Your task to perform on an android device: Open Google Maps Image 0: 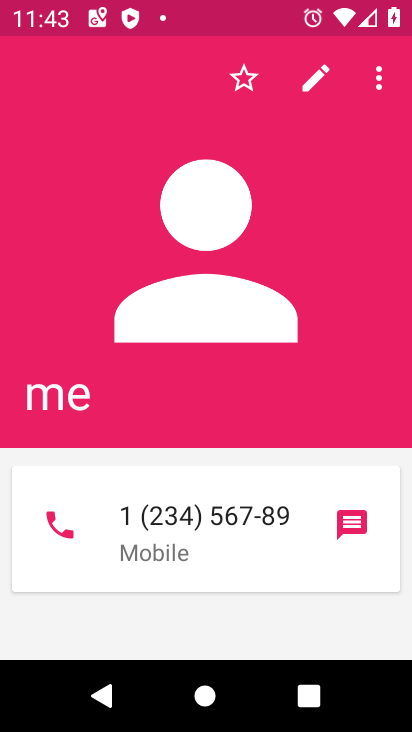
Step 0: press home button
Your task to perform on an android device: Open Google Maps Image 1: 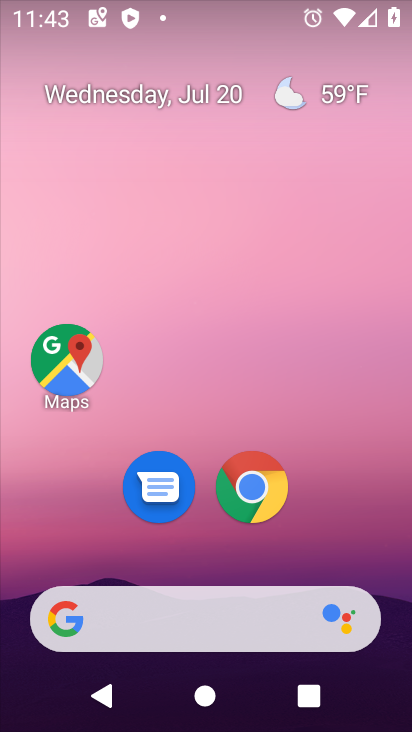
Step 1: drag from (362, 523) to (381, 73)
Your task to perform on an android device: Open Google Maps Image 2: 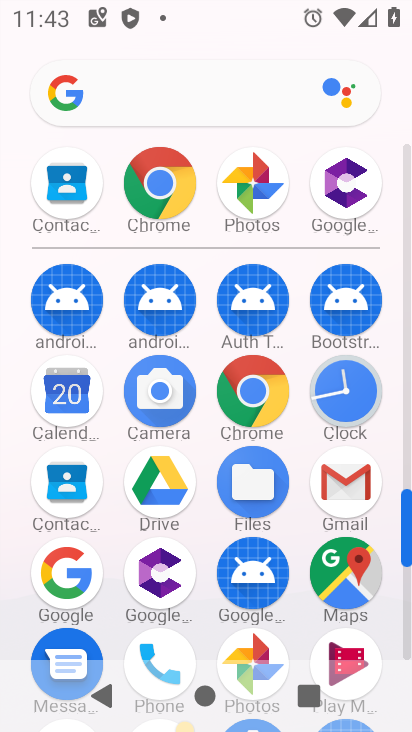
Step 2: click (361, 570)
Your task to perform on an android device: Open Google Maps Image 3: 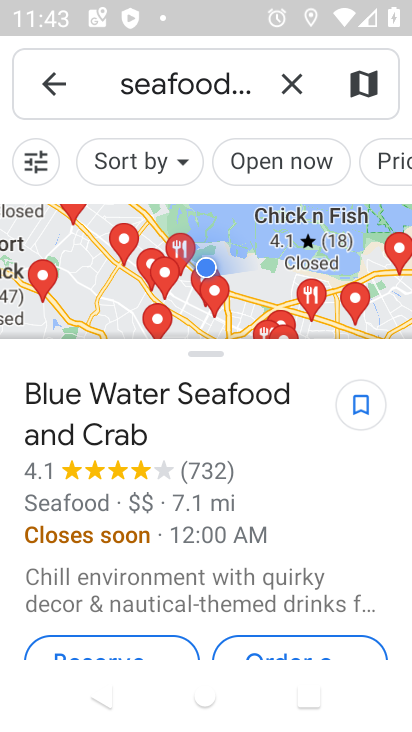
Step 3: task complete